Your task to perform on an android device: snooze an email in the gmail app Image 0: 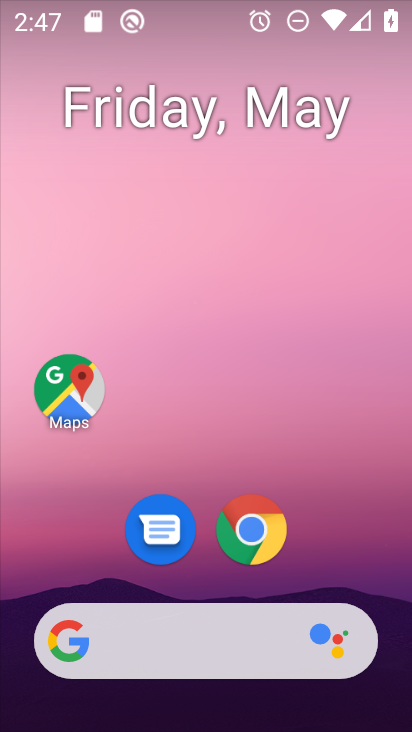
Step 0: drag from (393, 695) to (365, 300)
Your task to perform on an android device: snooze an email in the gmail app Image 1: 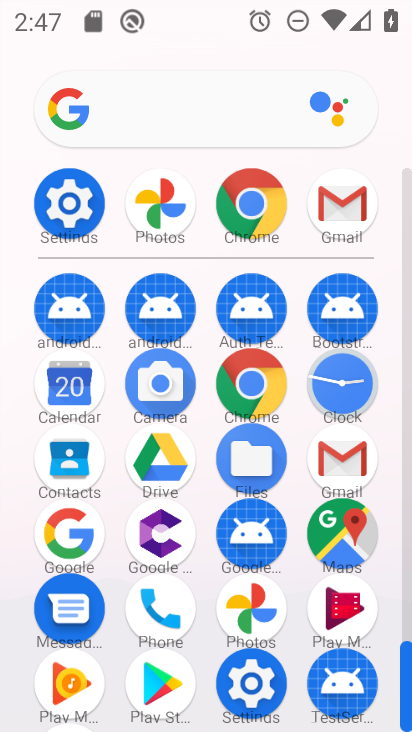
Step 1: click (347, 463)
Your task to perform on an android device: snooze an email in the gmail app Image 2: 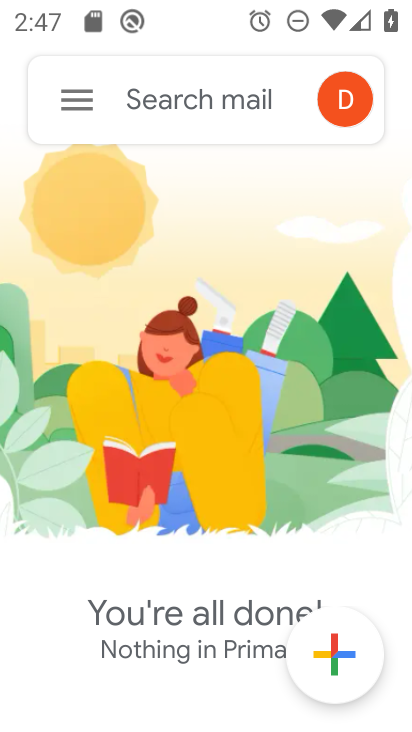
Step 2: click (85, 98)
Your task to perform on an android device: snooze an email in the gmail app Image 3: 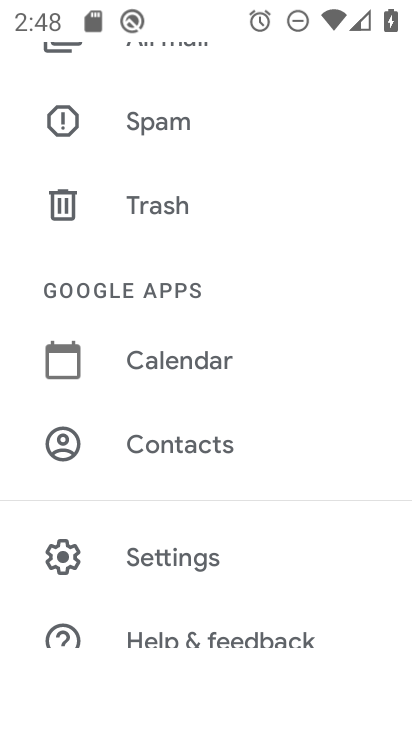
Step 3: drag from (267, 208) to (281, 681)
Your task to perform on an android device: snooze an email in the gmail app Image 4: 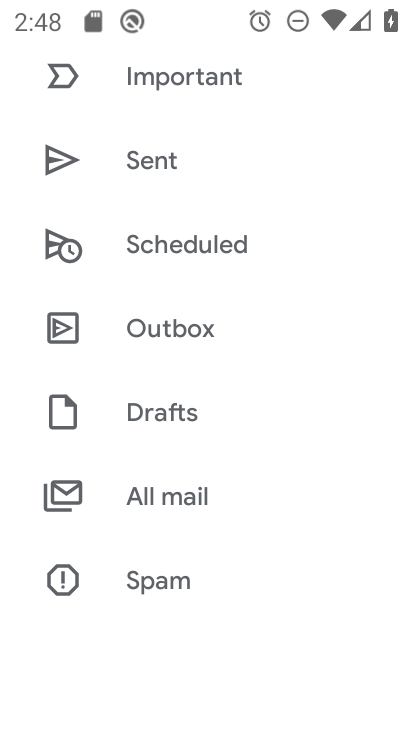
Step 4: drag from (311, 113) to (303, 622)
Your task to perform on an android device: snooze an email in the gmail app Image 5: 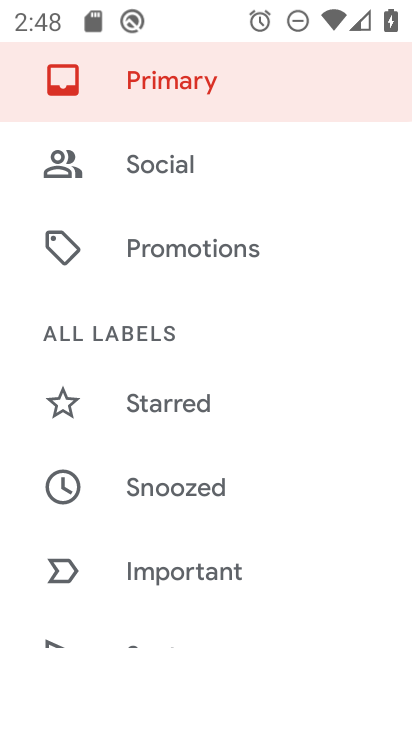
Step 5: drag from (329, 217) to (320, 526)
Your task to perform on an android device: snooze an email in the gmail app Image 6: 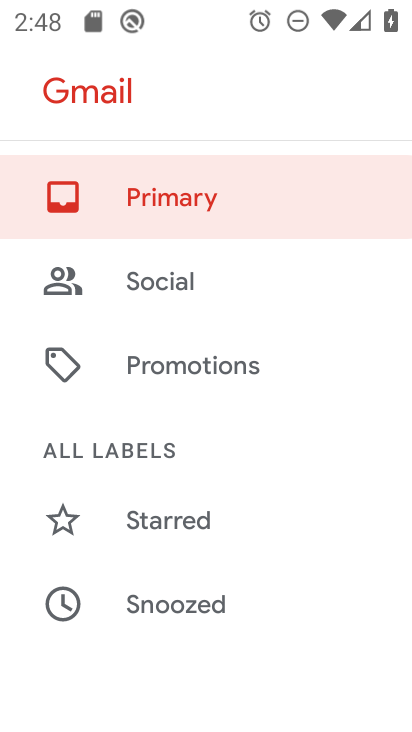
Step 6: click (151, 187)
Your task to perform on an android device: snooze an email in the gmail app Image 7: 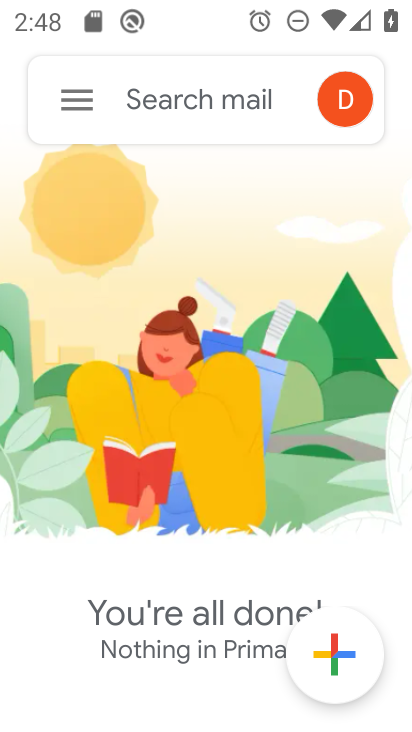
Step 7: click (71, 91)
Your task to perform on an android device: snooze an email in the gmail app Image 8: 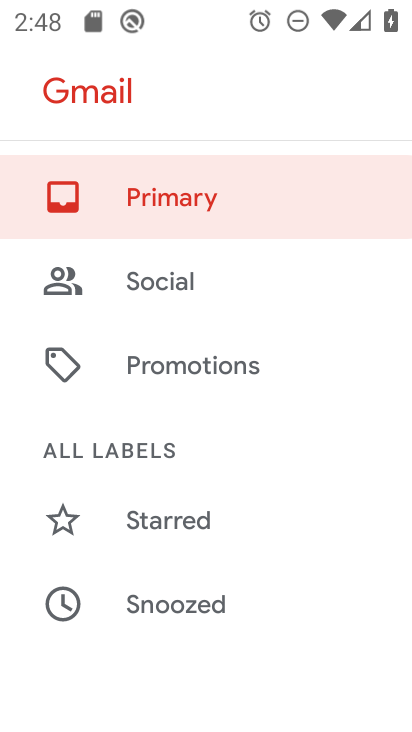
Step 8: click (135, 197)
Your task to perform on an android device: snooze an email in the gmail app Image 9: 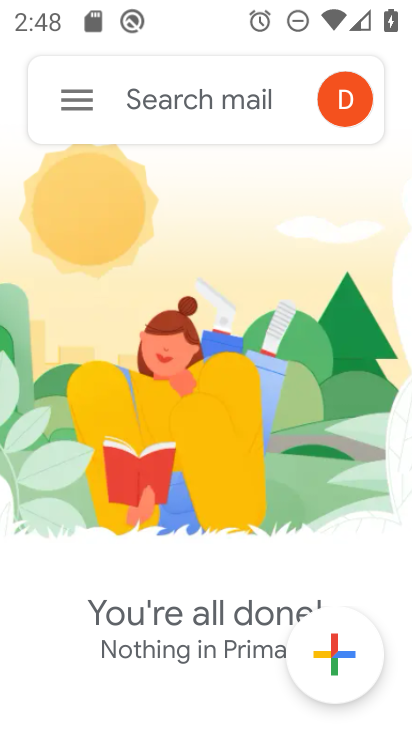
Step 9: task complete